Your task to perform on an android device: Go to battery settings Image 0: 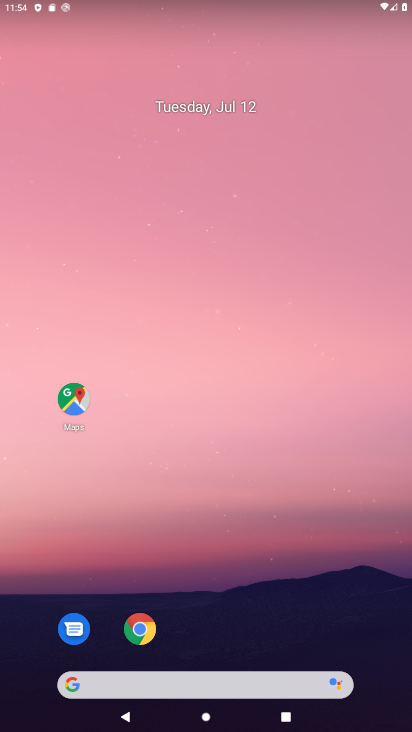
Step 0: drag from (209, 247) to (209, 25)
Your task to perform on an android device: Go to battery settings Image 1: 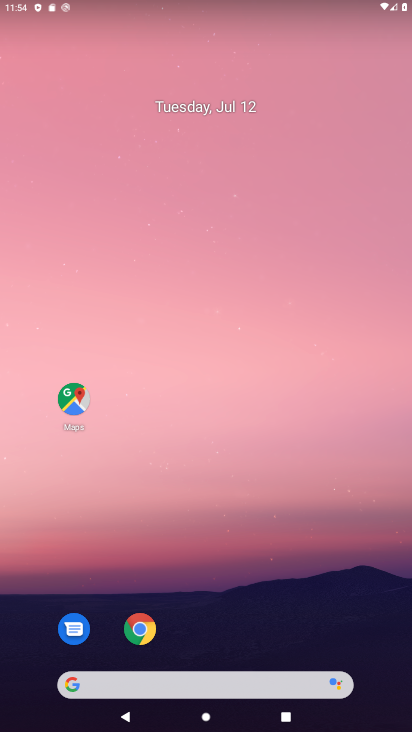
Step 1: drag from (225, 629) to (232, 153)
Your task to perform on an android device: Go to battery settings Image 2: 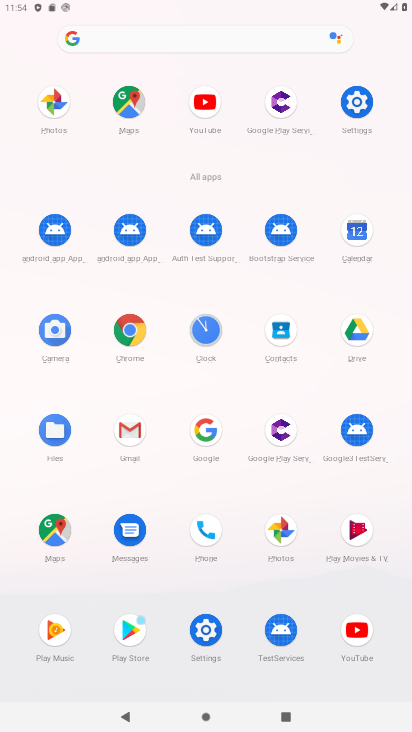
Step 2: click (369, 104)
Your task to perform on an android device: Go to battery settings Image 3: 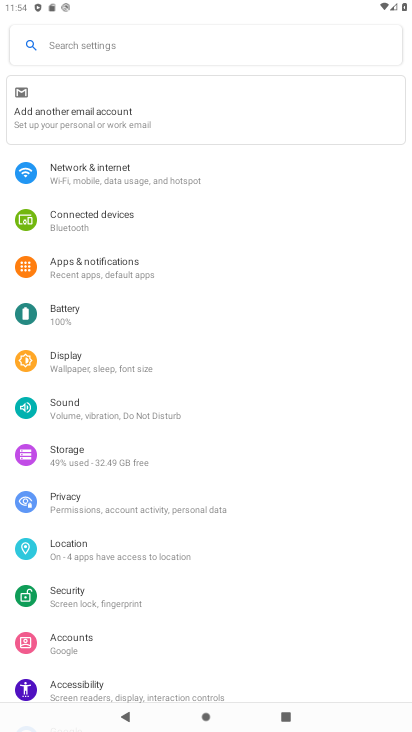
Step 3: click (93, 302)
Your task to perform on an android device: Go to battery settings Image 4: 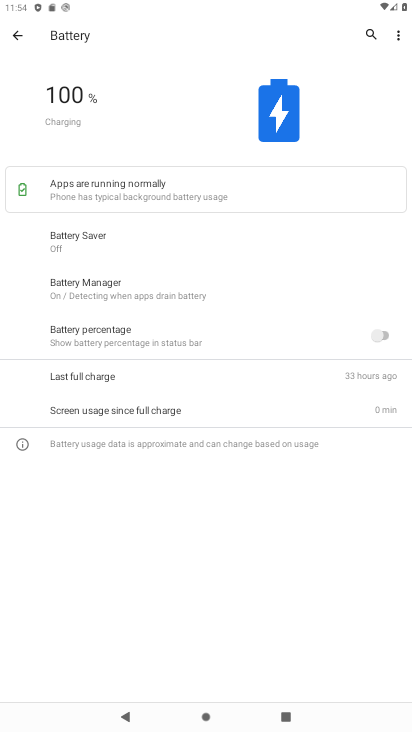
Step 4: task complete